Your task to perform on an android device: change timer sound Image 0: 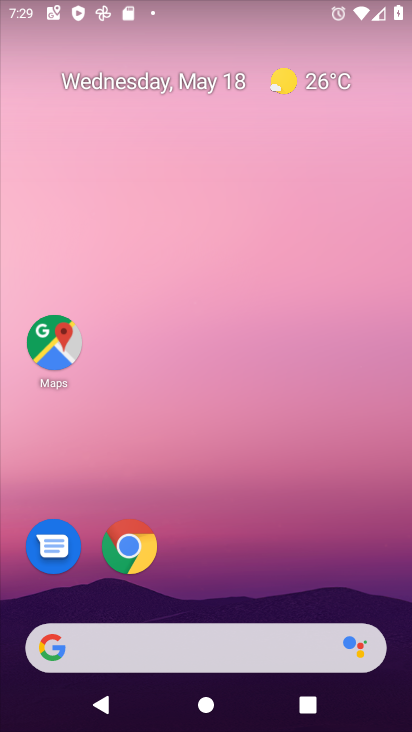
Step 0: drag from (374, 596) to (308, 3)
Your task to perform on an android device: change timer sound Image 1: 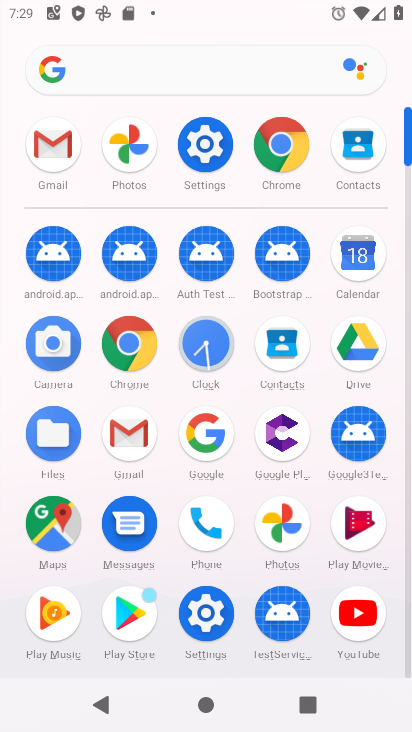
Step 1: click (222, 345)
Your task to perform on an android device: change timer sound Image 2: 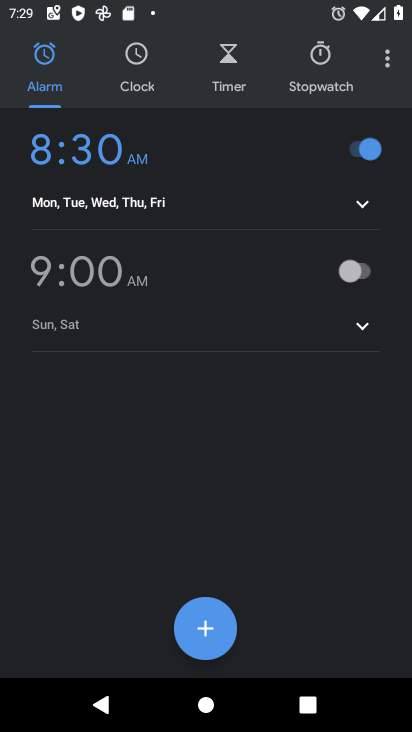
Step 2: click (386, 59)
Your task to perform on an android device: change timer sound Image 3: 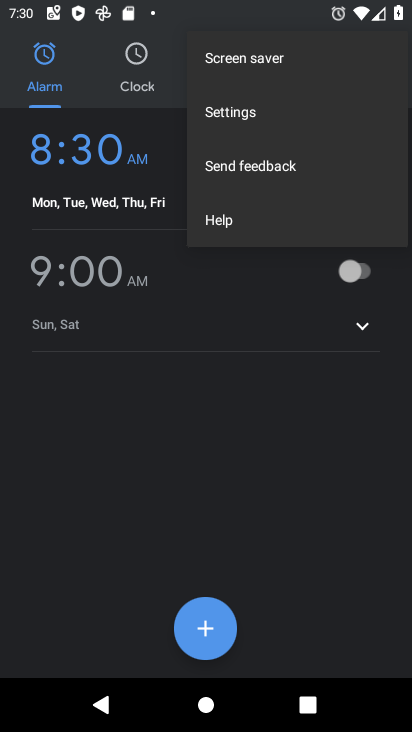
Step 3: click (272, 103)
Your task to perform on an android device: change timer sound Image 4: 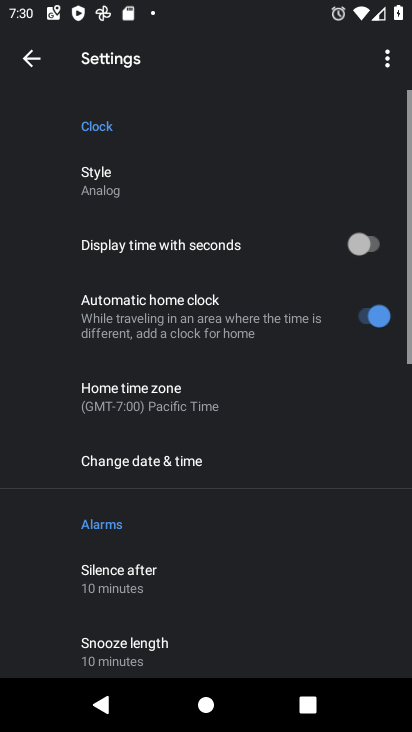
Step 4: drag from (197, 574) to (185, 122)
Your task to perform on an android device: change timer sound Image 5: 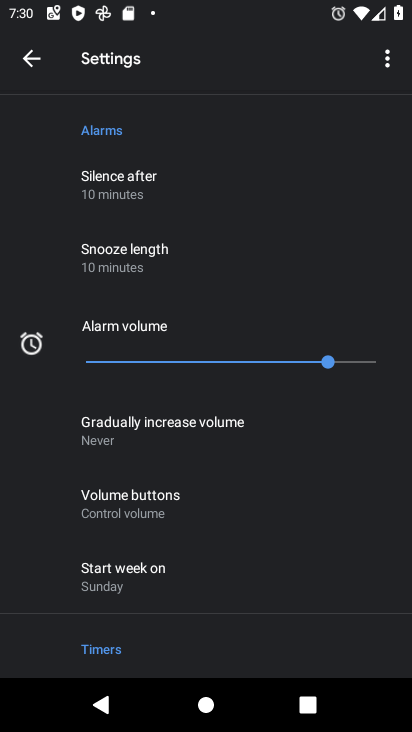
Step 5: drag from (237, 591) to (258, 143)
Your task to perform on an android device: change timer sound Image 6: 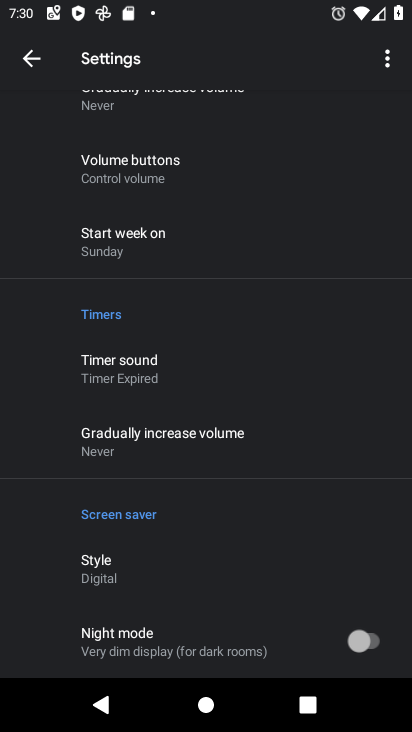
Step 6: click (198, 363)
Your task to perform on an android device: change timer sound Image 7: 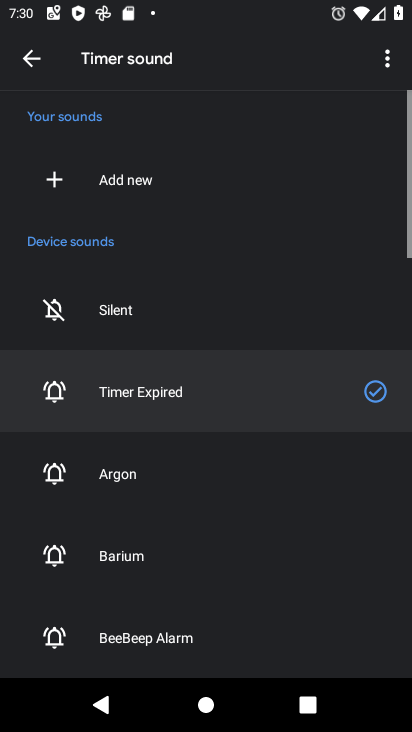
Step 7: click (120, 513)
Your task to perform on an android device: change timer sound Image 8: 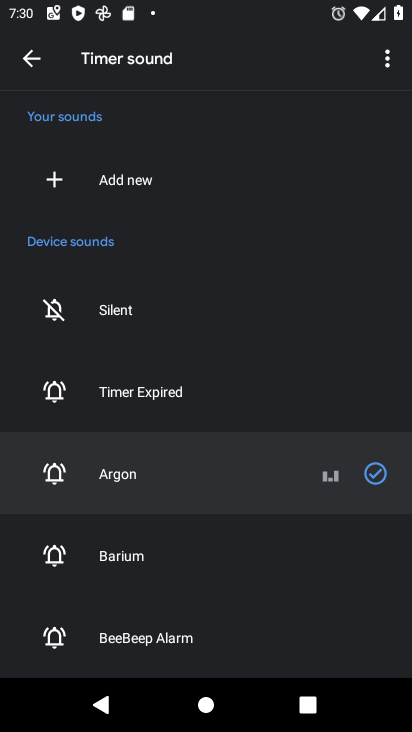
Step 8: task complete